Your task to perform on an android device: Open calendar and show me the third week of next month Image 0: 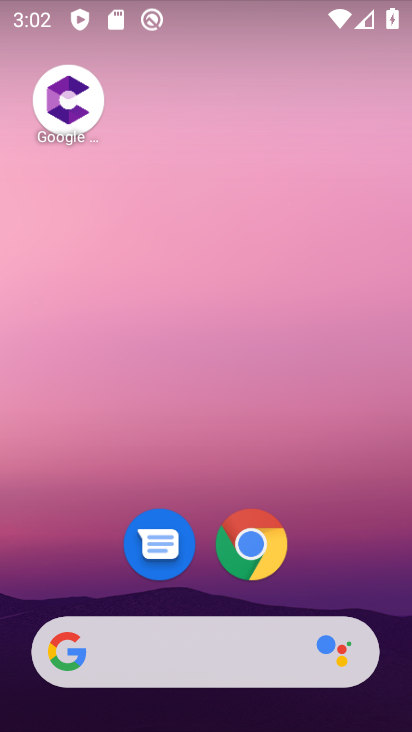
Step 0: drag from (218, 592) to (233, 286)
Your task to perform on an android device: Open calendar and show me the third week of next month Image 1: 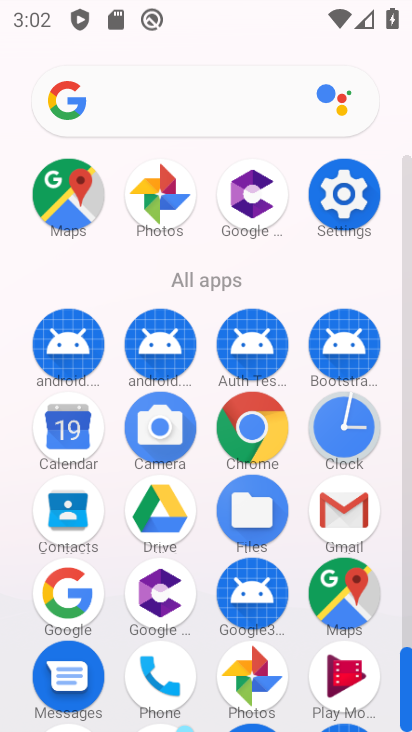
Step 1: click (85, 450)
Your task to perform on an android device: Open calendar and show me the third week of next month Image 2: 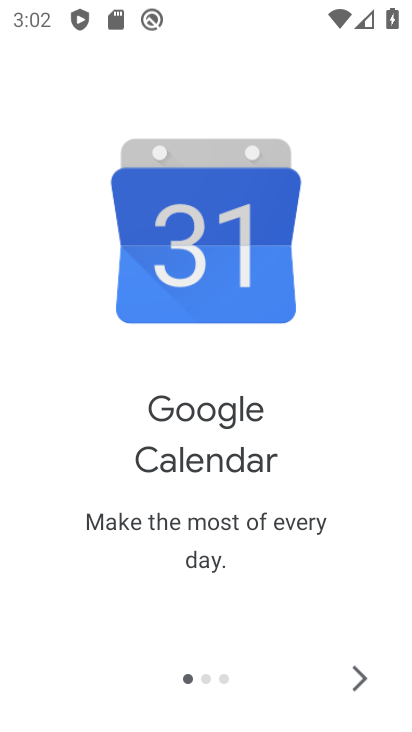
Step 2: click (338, 672)
Your task to perform on an android device: Open calendar and show me the third week of next month Image 3: 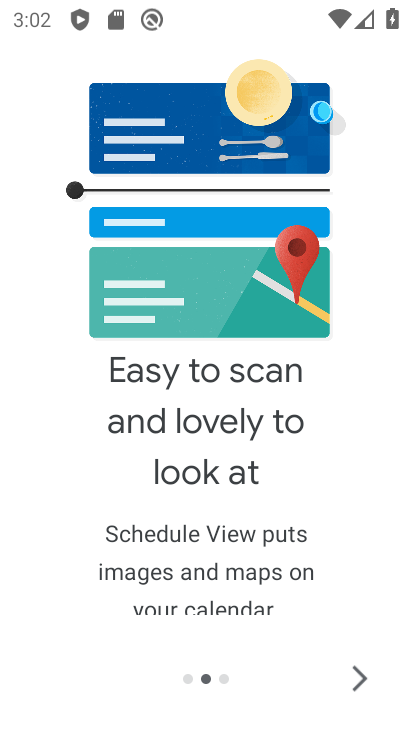
Step 3: click (357, 678)
Your task to perform on an android device: Open calendar and show me the third week of next month Image 4: 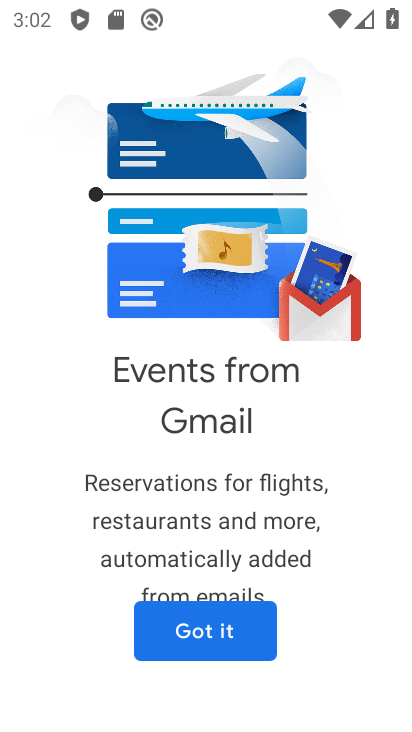
Step 4: click (266, 640)
Your task to perform on an android device: Open calendar and show me the third week of next month Image 5: 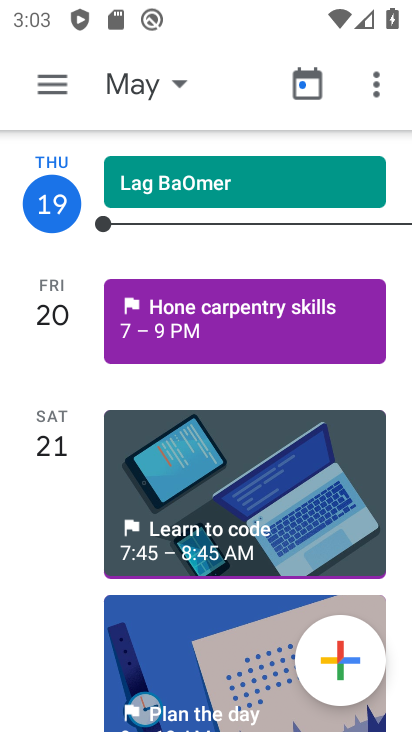
Step 5: click (68, 96)
Your task to perform on an android device: Open calendar and show me the third week of next month Image 6: 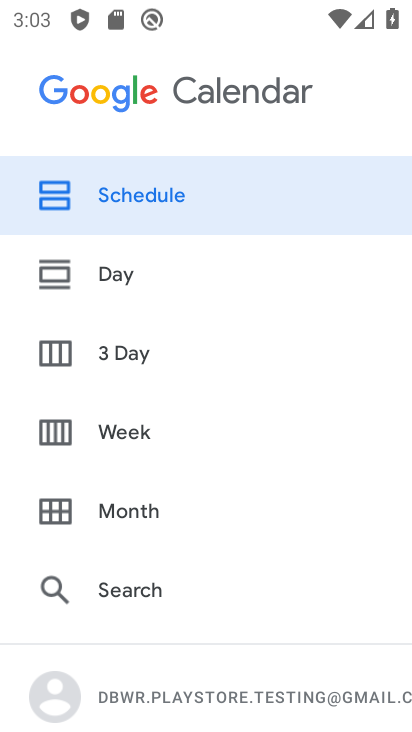
Step 6: click (144, 413)
Your task to perform on an android device: Open calendar and show me the third week of next month Image 7: 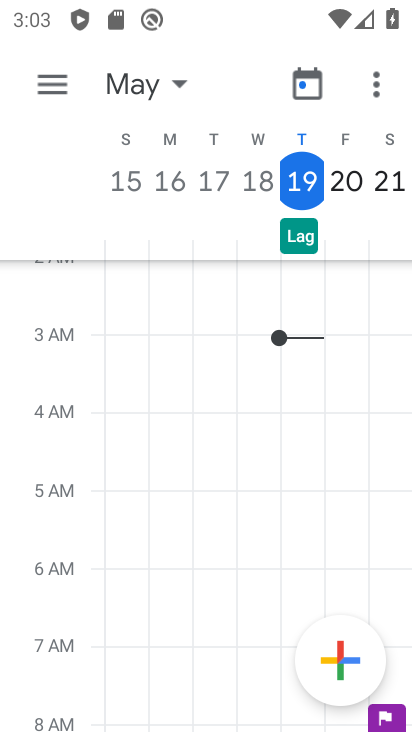
Step 7: task complete